Your task to perform on an android device: Go to CNN.com Image 0: 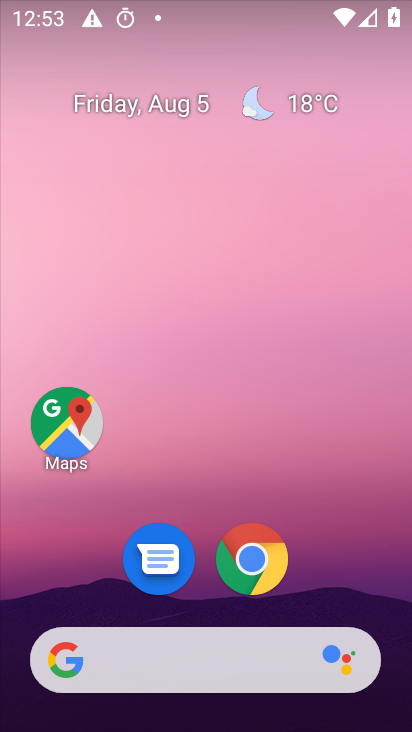
Step 0: click (151, 653)
Your task to perform on an android device: Go to CNN.com Image 1: 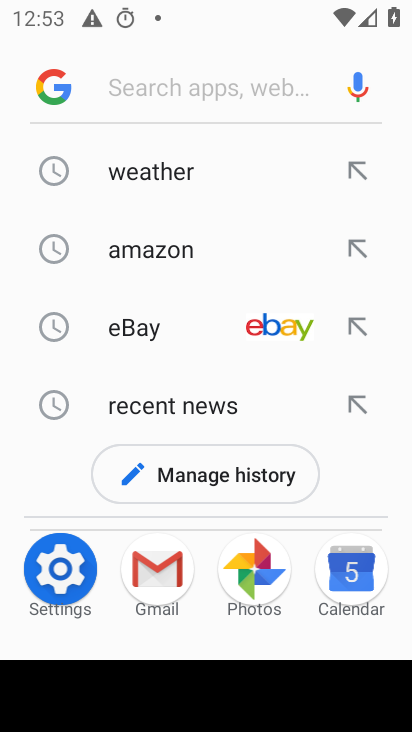
Step 1: type "CNN.com"
Your task to perform on an android device: Go to CNN.com Image 2: 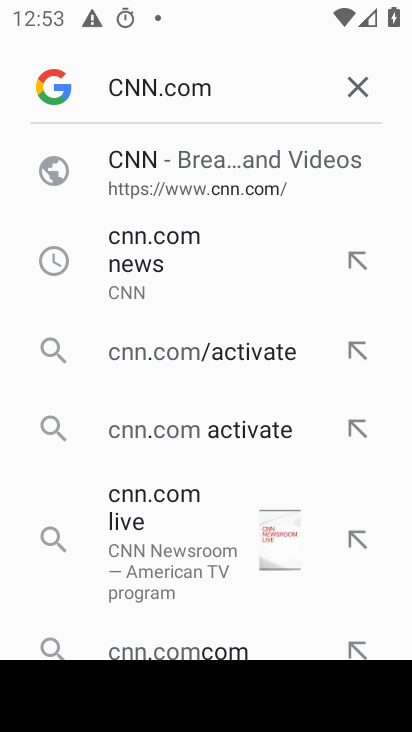
Step 2: click (140, 159)
Your task to perform on an android device: Go to CNN.com Image 3: 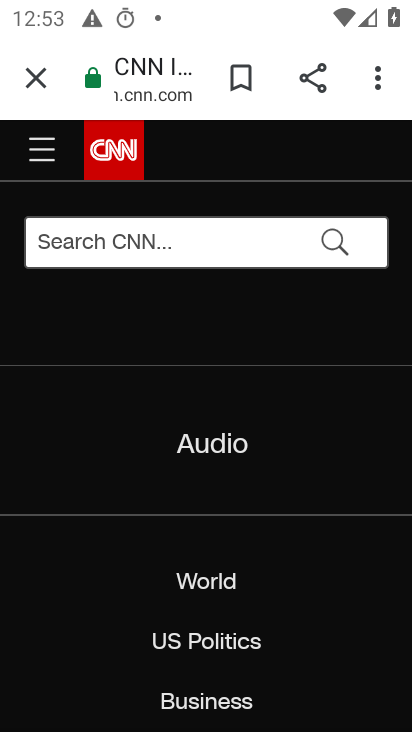
Step 3: task complete